Your task to perform on an android device: Show me popular games on the Play Store Image 0: 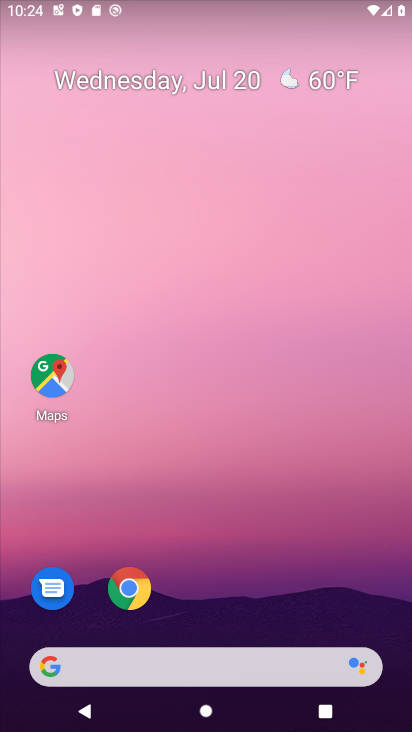
Step 0: drag from (193, 627) to (254, 14)
Your task to perform on an android device: Show me popular games on the Play Store Image 1: 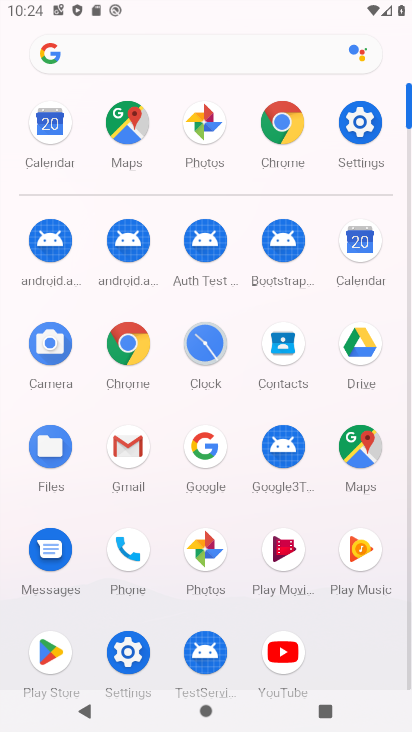
Step 1: click (49, 654)
Your task to perform on an android device: Show me popular games on the Play Store Image 2: 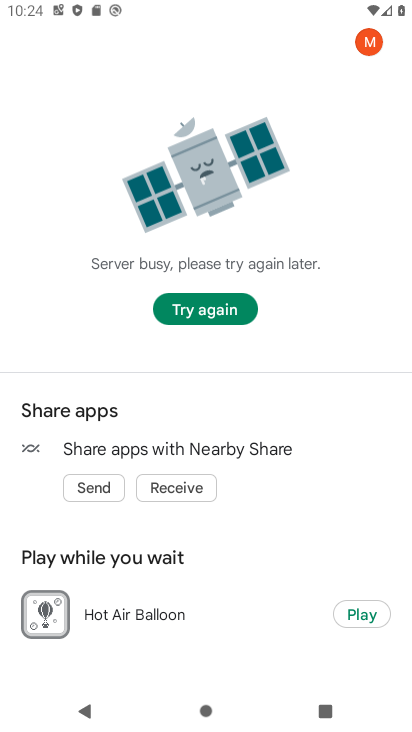
Step 2: click (254, 312)
Your task to perform on an android device: Show me popular games on the Play Store Image 3: 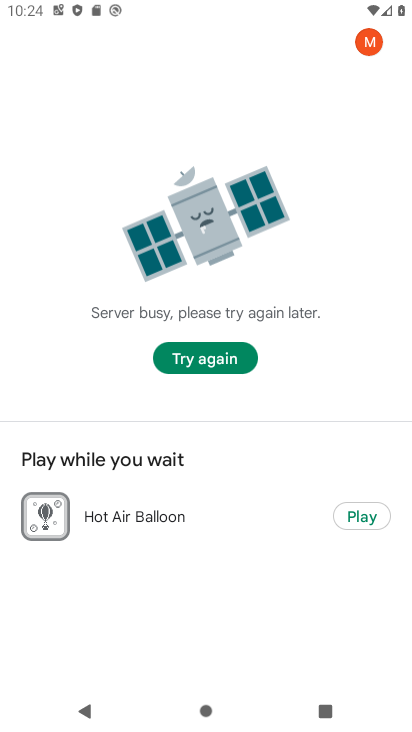
Step 3: click (215, 352)
Your task to perform on an android device: Show me popular games on the Play Store Image 4: 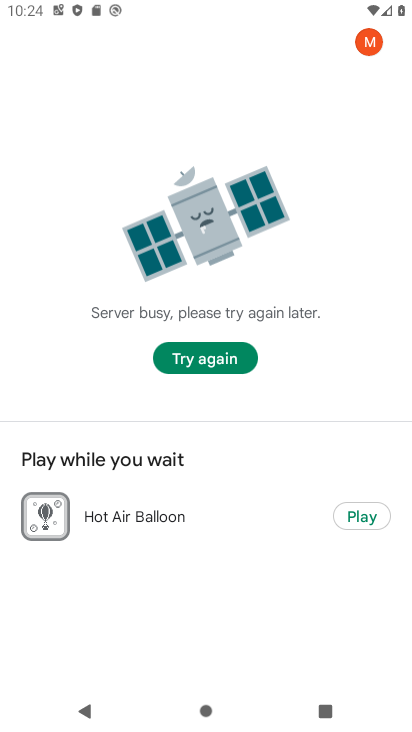
Step 4: click (215, 353)
Your task to perform on an android device: Show me popular games on the Play Store Image 5: 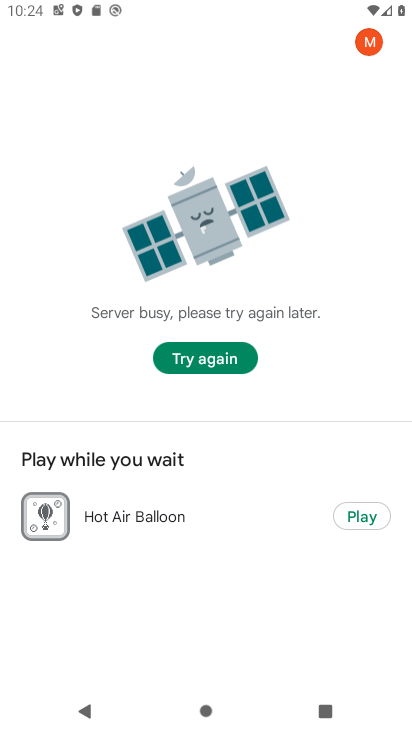
Step 5: click (177, 372)
Your task to perform on an android device: Show me popular games on the Play Store Image 6: 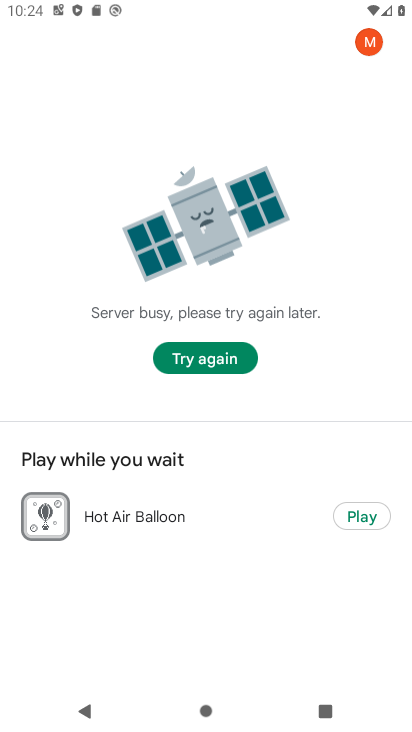
Step 6: click (220, 357)
Your task to perform on an android device: Show me popular games on the Play Store Image 7: 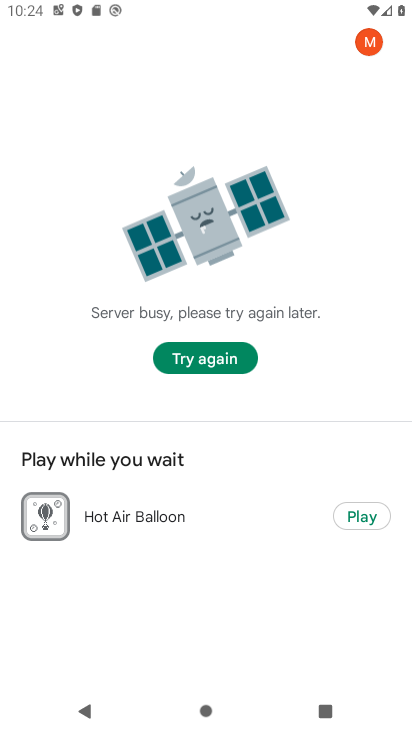
Step 7: task complete